Your task to perform on an android device: Open Chrome and go to settings Image 0: 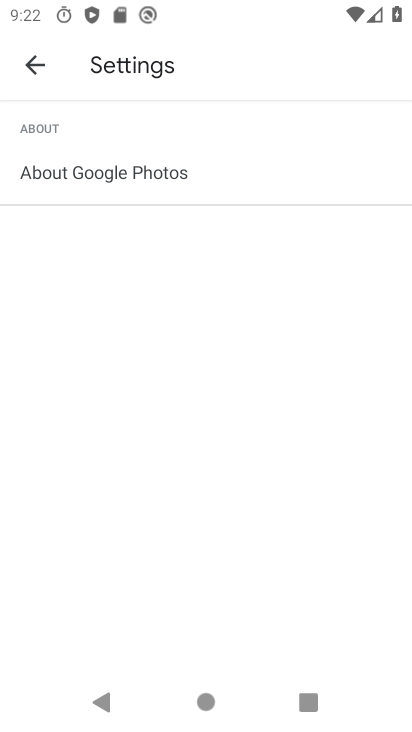
Step 0: press home button
Your task to perform on an android device: Open Chrome and go to settings Image 1: 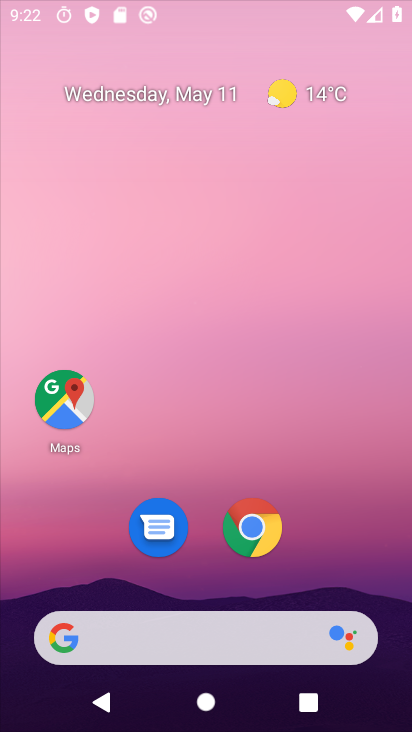
Step 1: drag from (233, 657) to (283, 147)
Your task to perform on an android device: Open Chrome and go to settings Image 2: 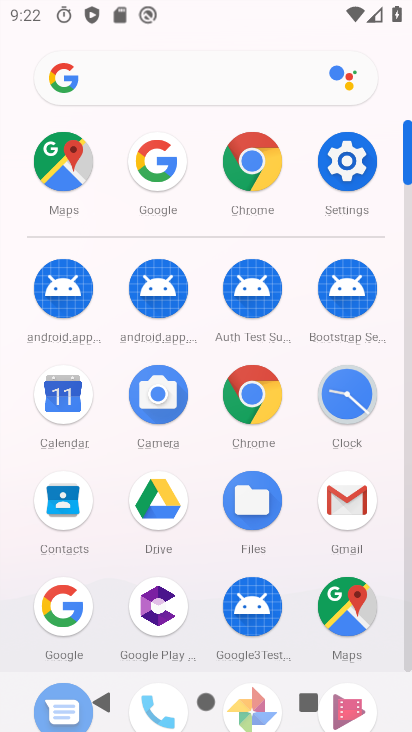
Step 2: click (250, 171)
Your task to perform on an android device: Open Chrome and go to settings Image 3: 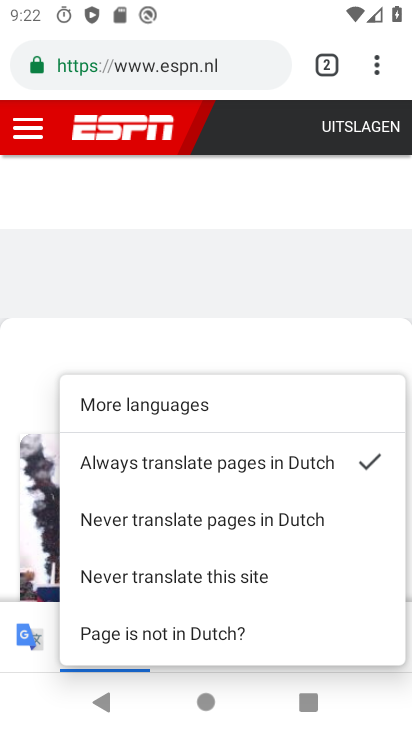
Step 3: click (373, 74)
Your task to perform on an android device: Open Chrome and go to settings Image 4: 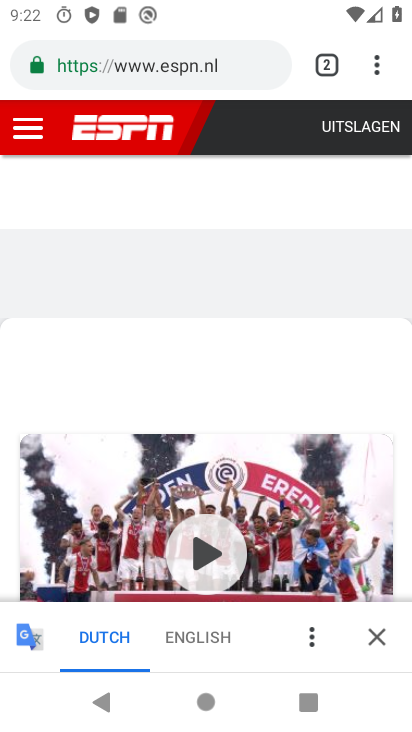
Step 4: click (377, 72)
Your task to perform on an android device: Open Chrome and go to settings Image 5: 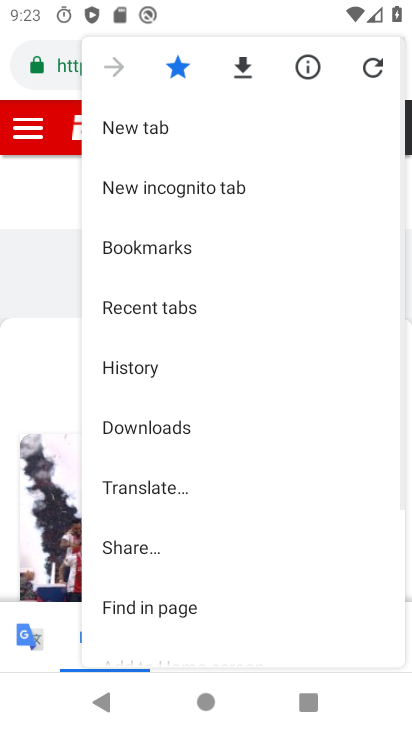
Step 5: drag from (268, 506) to (285, 113)
Your task to perform on an android device: Open Chrome and go to settings Image 6: 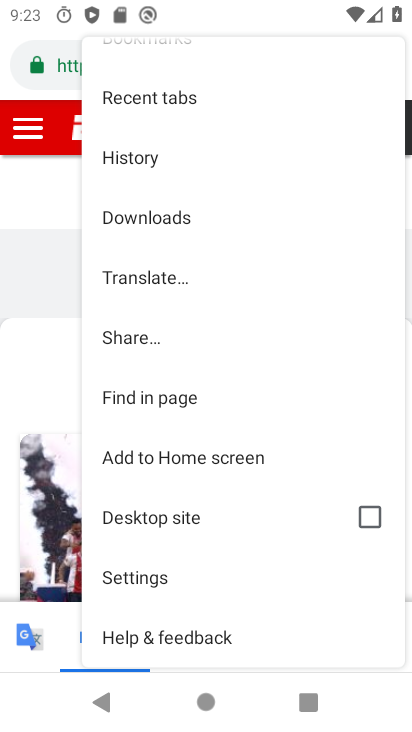
Step 6: click (164, 581)
Your task to perform on an android device: Open Chrome and go to settings Image 7: 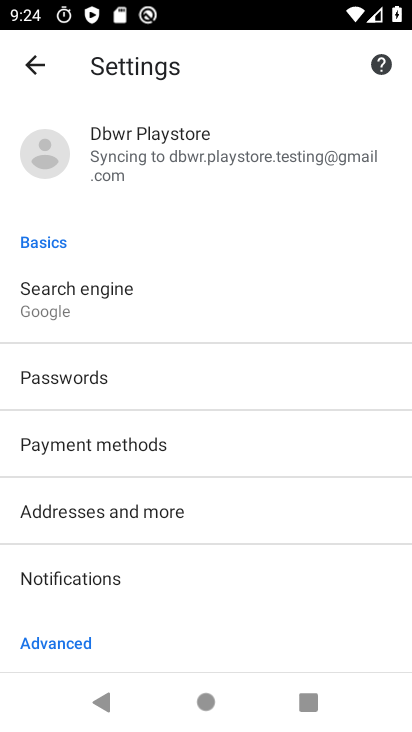
Step 7: task complete